Your task to perform on an android device: set the stopwatch Image 0: 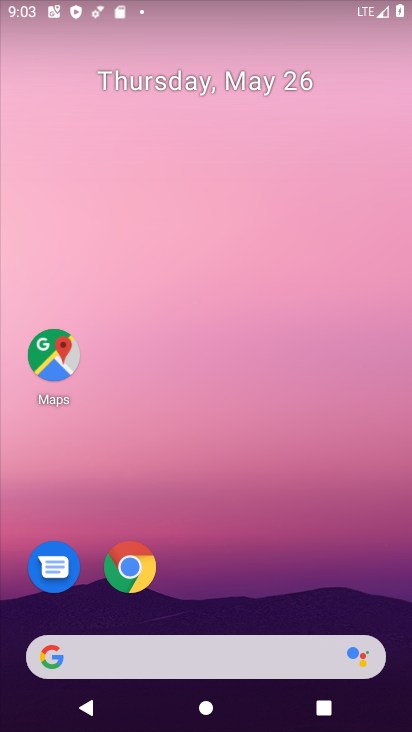
Step 0: drag from (284, 709) to (202, 18)
Your task to perform on an android device: set the stopwatch Image 1: 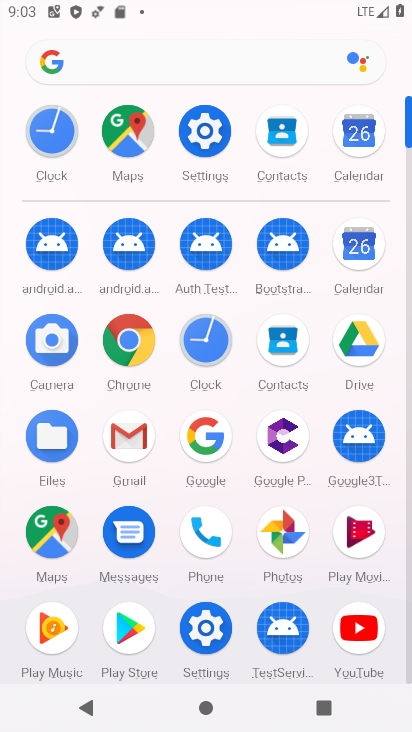
Step 1: click (52, 141)
Your task to perform on an android device: set the stopwatch Image 2: 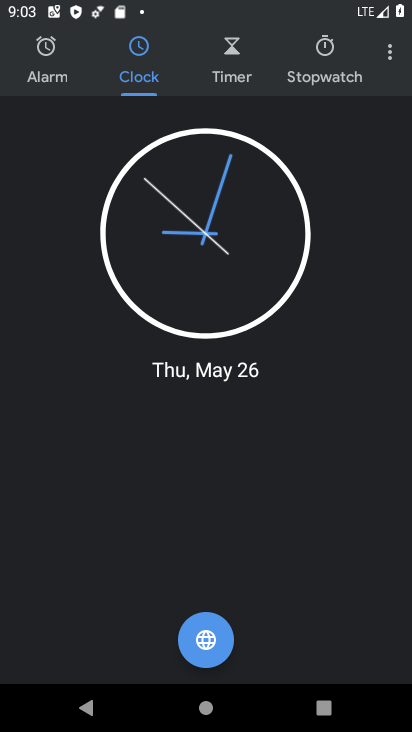
Step 2: click (325, 55)
Your task to perform on an android device: set the stopwatch Image 3: 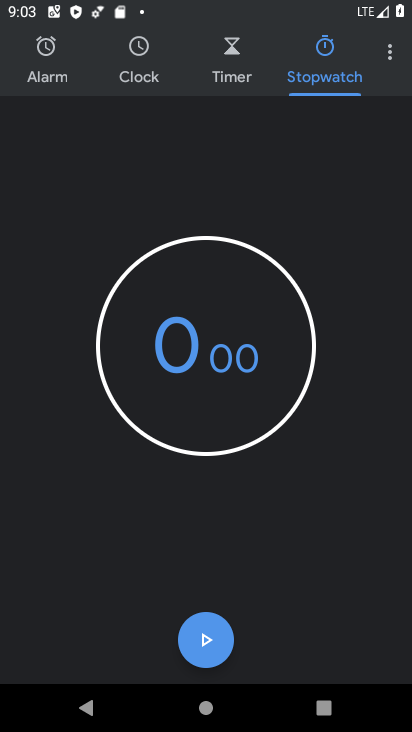
Step 3: task complete